Your task to perform on an android device: Open sound settings Image 0: 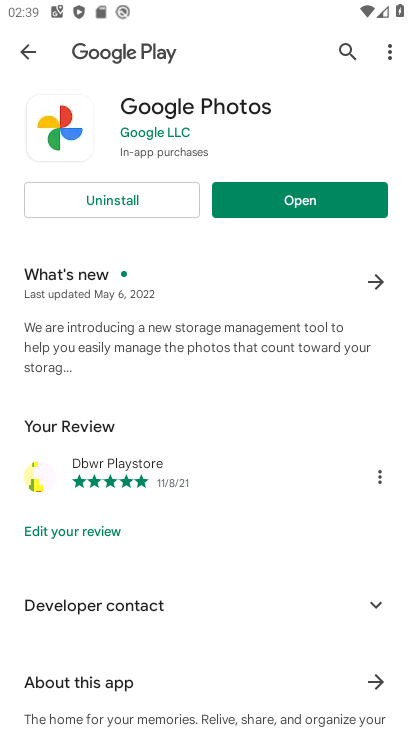
Step 0: press home button
Your task to perform on an android device: Open sound settings Image 1: 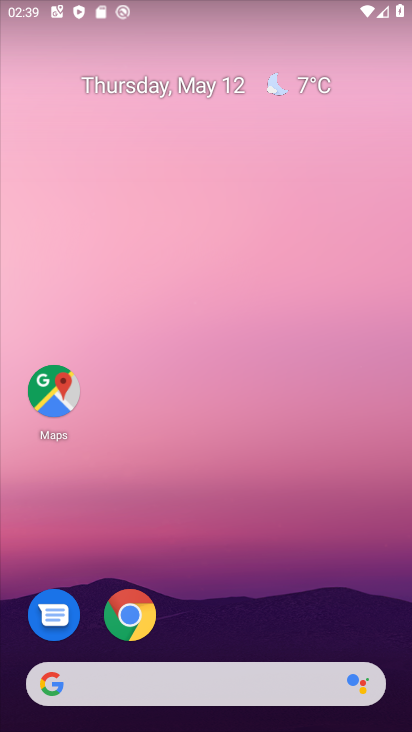
Step 1: drag from (206, 656) to (222, 174)
Your task to perform on an android device: Open sound settings Image 2: 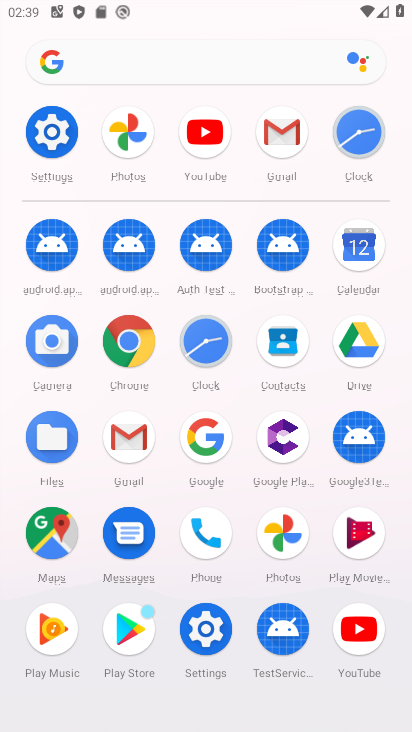
Step 2: click (53, 130)
Your task to perform on an android device: Open sound settings Image 3: 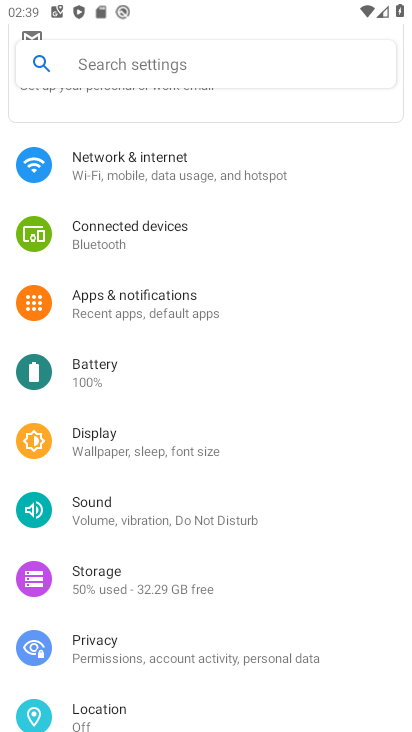
Step 3: click (106, 512)
Your task to perform on an android device: Open sound settings Image 4: 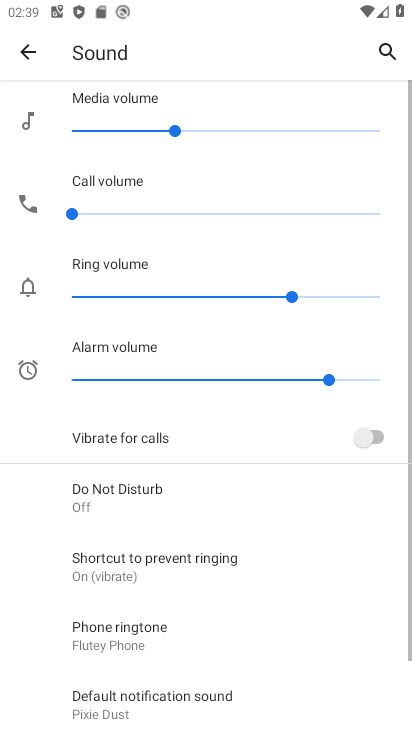
Step 4: task complete